Your task to perform on an android device: Go to settings Image 0: 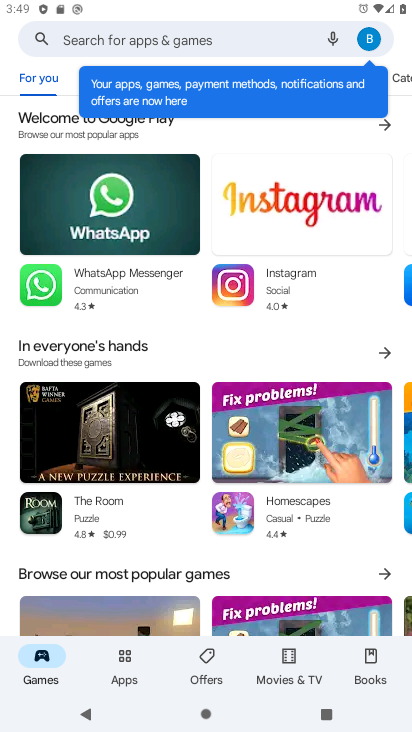
Step 0: press home button
Your task to perform on an android device: Go to settings Image 1: 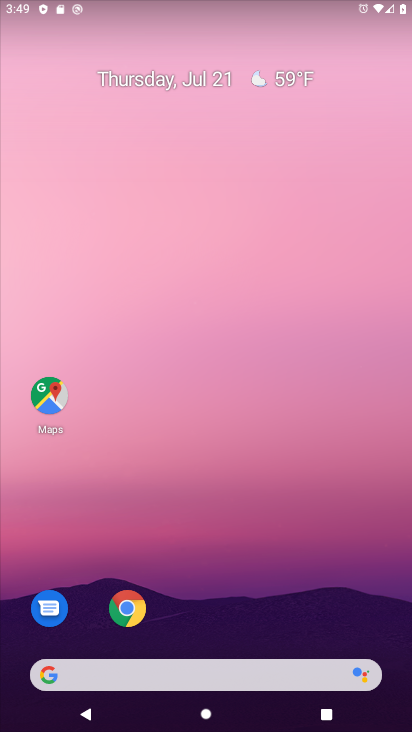
Step 1: drag from (286, 573) to (317, 74)
Your task to perform on an android device: Go to settings Image 2: 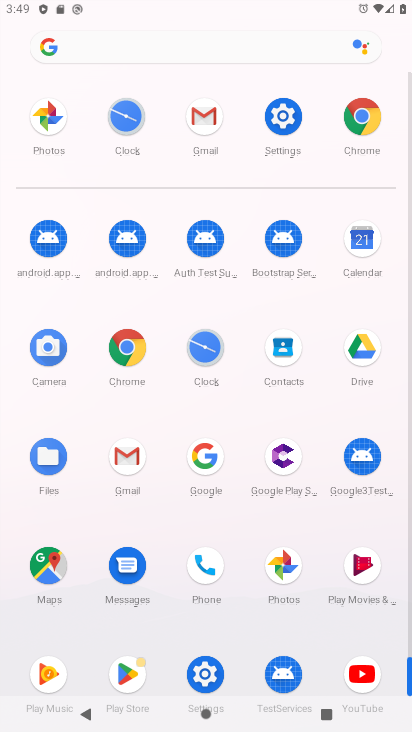
Step 2: click (290, 125)
Your task to perform on an android device: Go to settings Image 3: 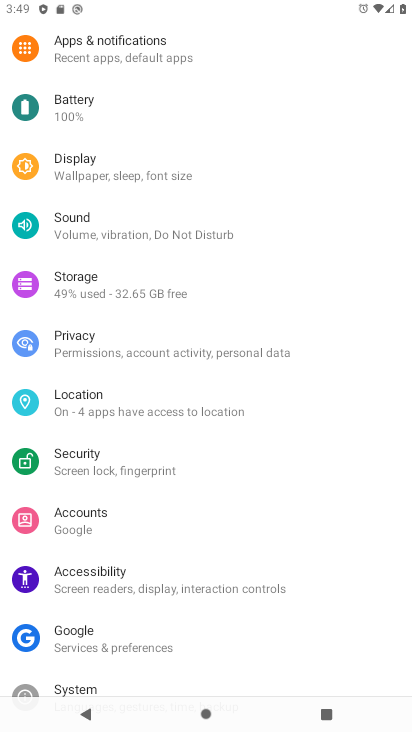
Step 3: task complete